Your task to perform on an android device: Open Chrome and go to settings Image 0: 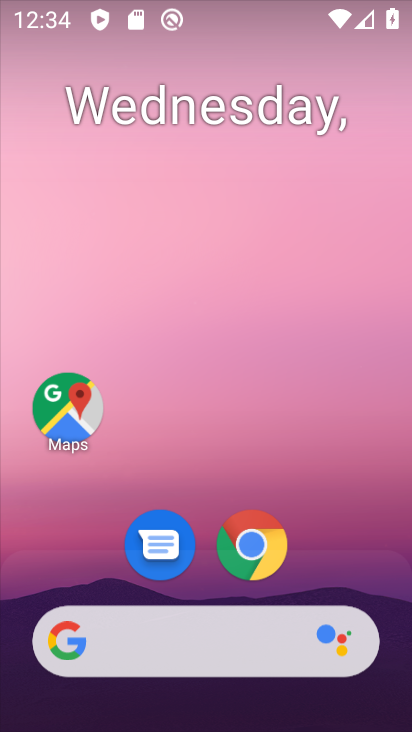
Step 0: drag from (328, 475) to (307, 161)
Your task to perform on an android device: Open Chrome and go to settings Image 1: 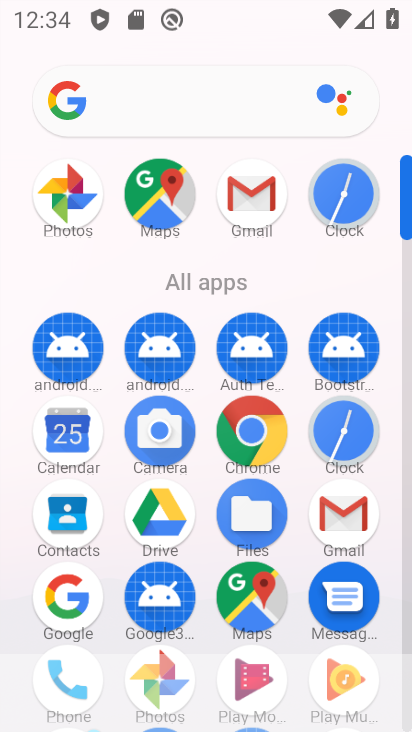
Step 1: click (272, 426)
Your task to perform on an android device: Open Chrome and go to settings Image 2: 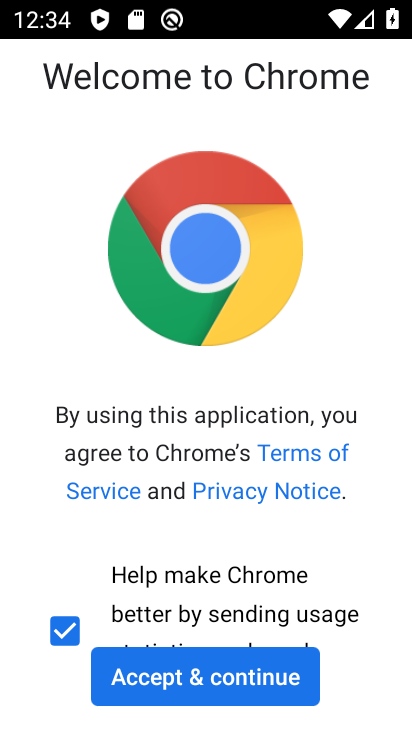
Step 2: click (253, 678)
Your task to perform on an android device: Open Chrome and go to settings Image 3: 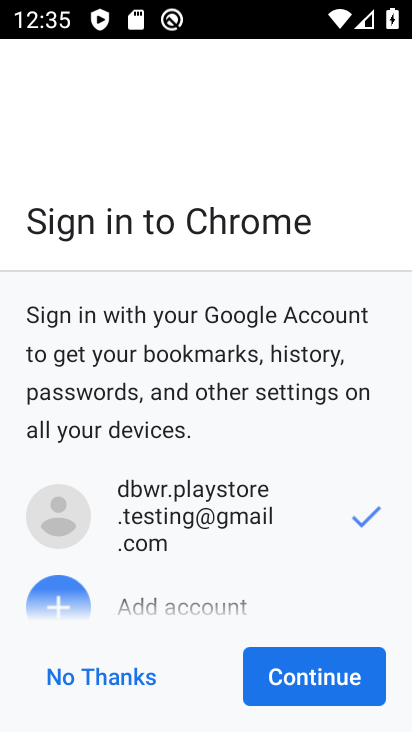
Step 3: click (309, 659)
Your task to perform on an android device: Open Chrome and go to settings Image 4: 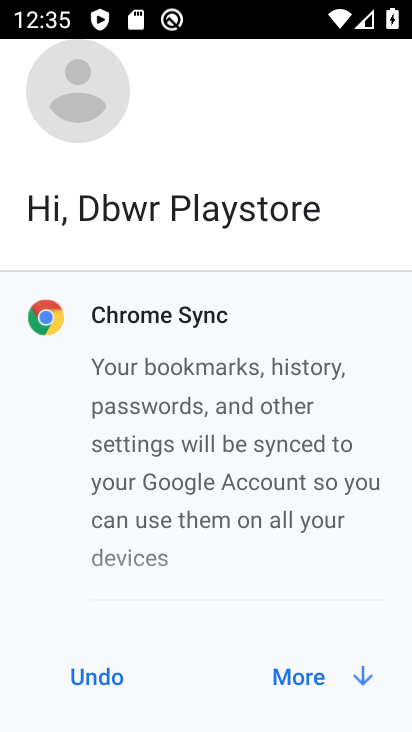
Step 4: click (326, 652)
Your task to perform on an android device: Open Chrome and go to settings Image 5: 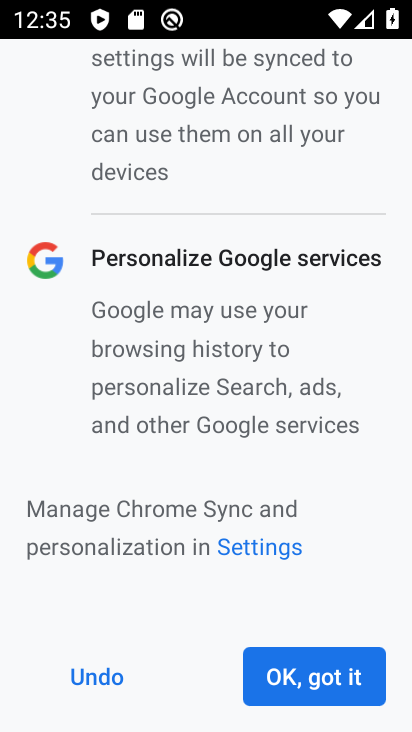
Step 5: click (331, 640)
Your task to perform on an android device: Open Chrome and go to settings Image 6: 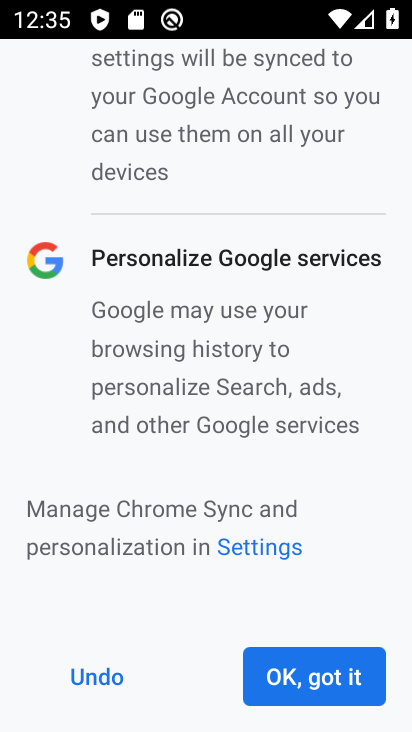
Step 6: click (335, 653)
Your task to perform on an android device: Open Chrome and go to settings Image 7: 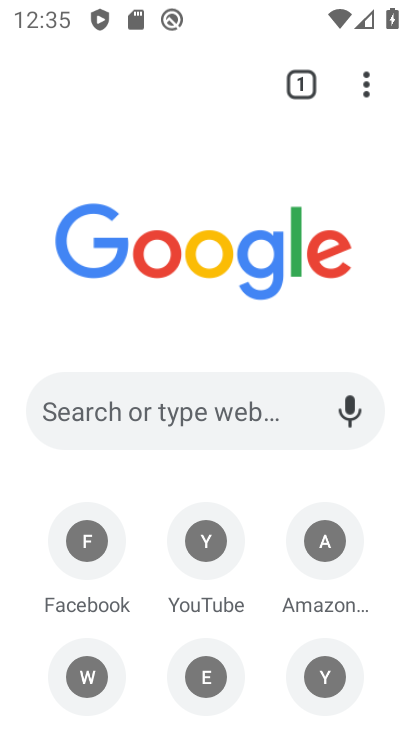
Step 7: task complete